Your task to perform on an android device: star an email in the gmail app Image 0: 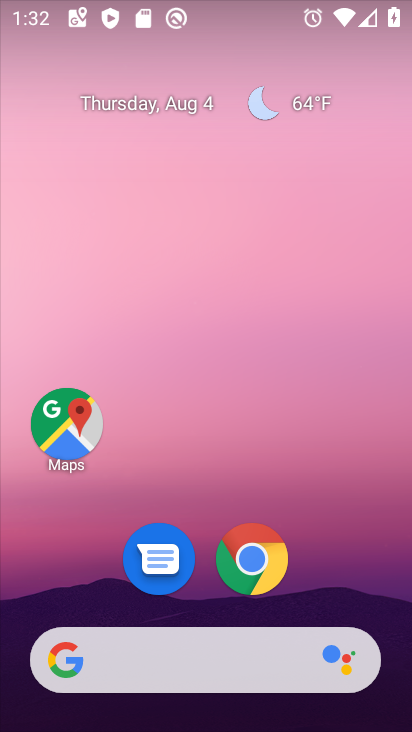
Step 0: drag from (192, 671) to (255, 39)
Your task to perform on an android device: star an email in the gmail app Image 1: 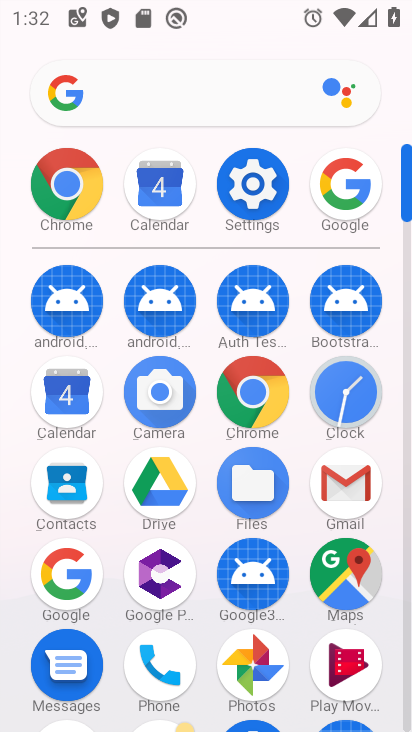
Step 1: click (347, 479)
Your task to perform on an android device: star an email in the gmail app Image 2: 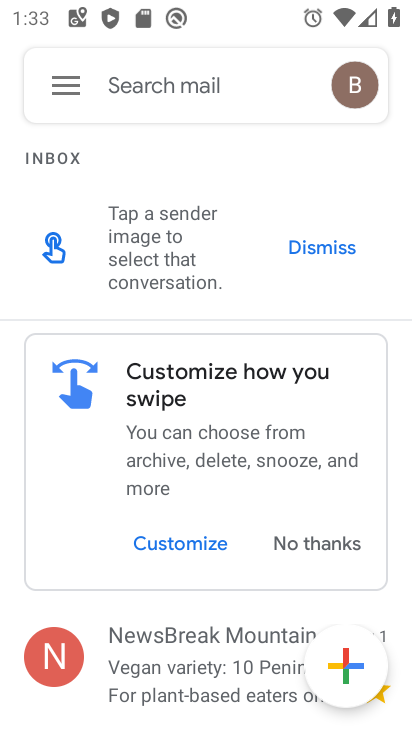
Step 2: task complete